Your task to perform on an android device: Search for Mexican restaurants on Maps Image 0: 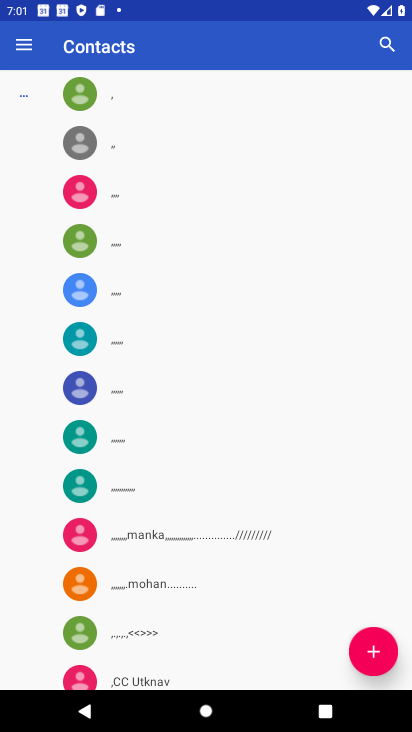
Step 0: press back button
Your task to perform on an android device: Search for Mexican restaurants on Maps Image 1: 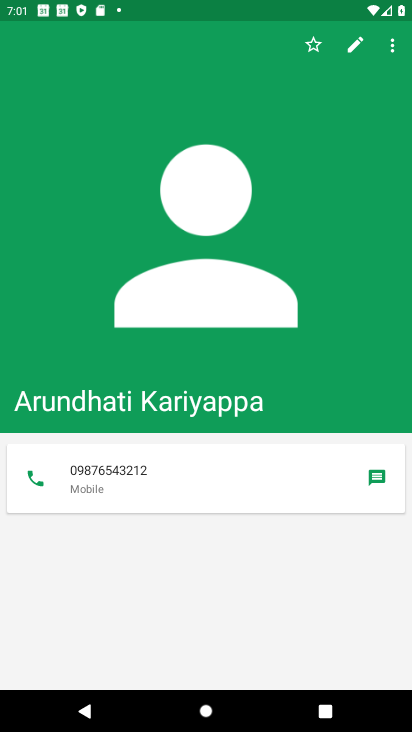
Step 1: press back button
Your task to perform on an android device: Search for Mexican restaurants on Maps Image 2: 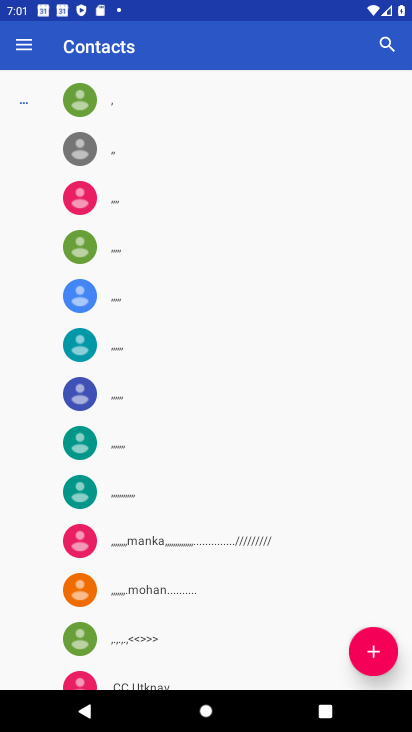
Step 2: press back button
Your task to perform on an android device: Search for Mexican restaurants on Maps Image 3: 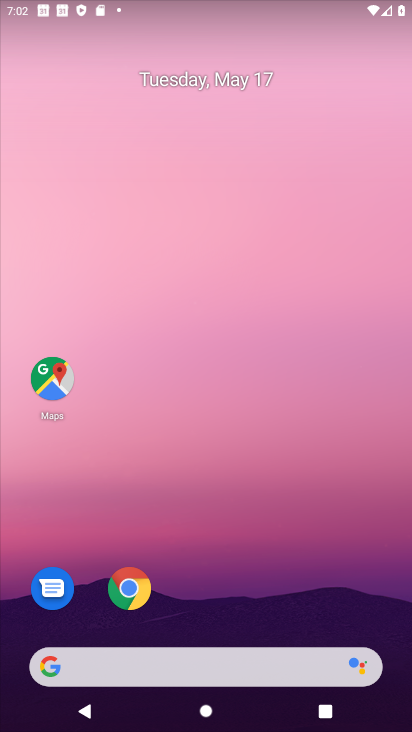
Step 3: click (51, 377)
Your task to perform on an android device: Search for Mexican restaurants on Maps Image 4: 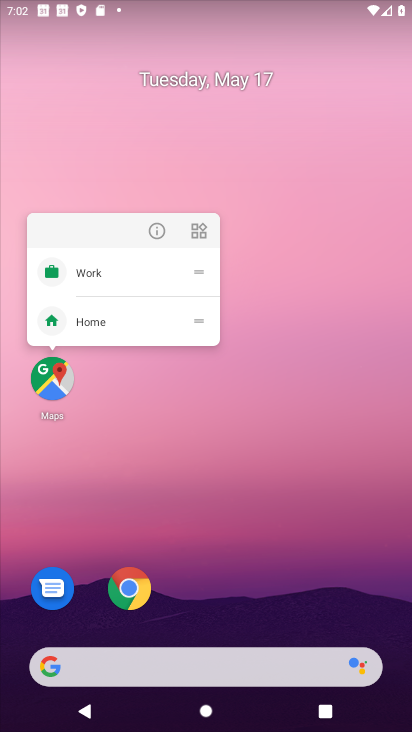
Step 4: click (54, 376)
Your task to perform on an android device: Search for Mexican restaurants on Maps Image 5: 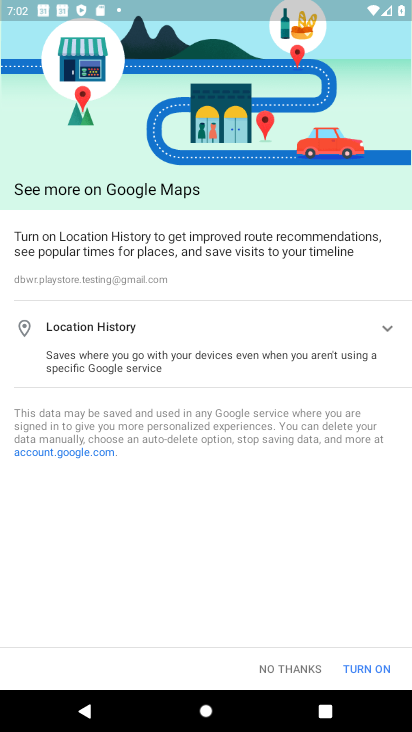
Step 5: click (297, 670)
Your task to perform on an android device: Search for Mexican restaurants on Maps Image 6: 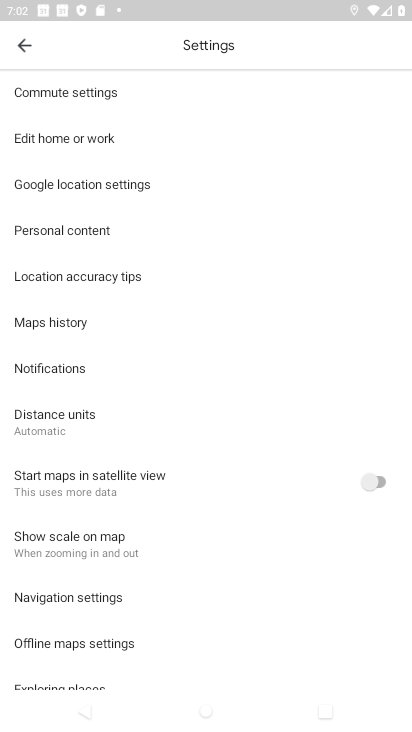
Step 6: press back button
Your task to perform on an android device: Search for Mexican restaurants on Maps Image 7: 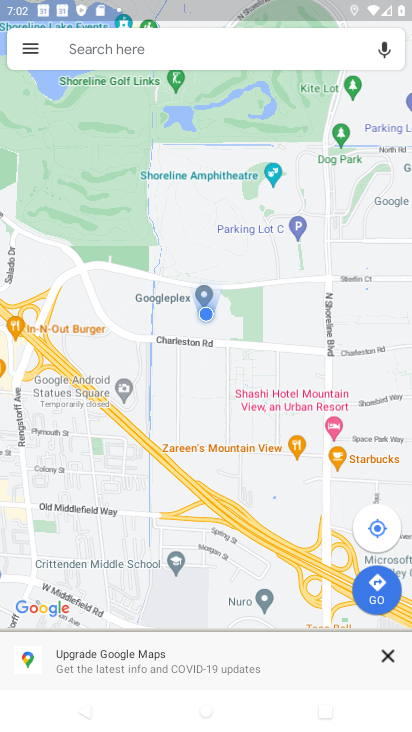
Step 7: click (123, 44)
Your task to perform on an android device: Search for Mexican restaurants on Maps Image 8: 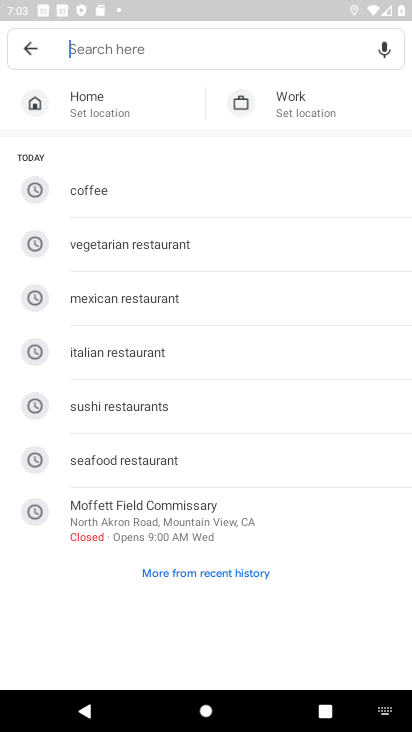
Step 8: type "Mexican restaurants"
Your task to perform on an android device: Search for Mexican restaurants on Maps Image 9: 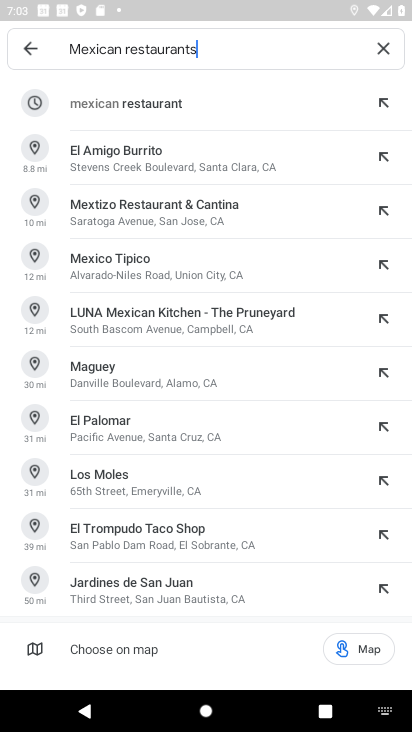
Step 9: click (117, 101)
Your task to perform on an android device: Search for Mexican restaurants on Maps Image 10: 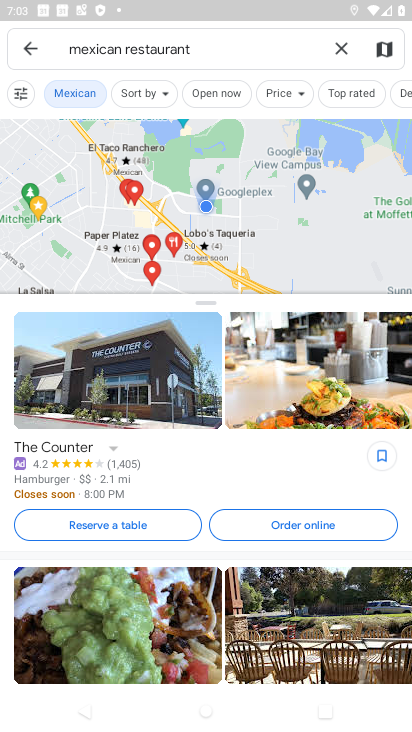
Step 10: task complete